Your task to perform on an android device: set default search engine in the chrome app Image 0: 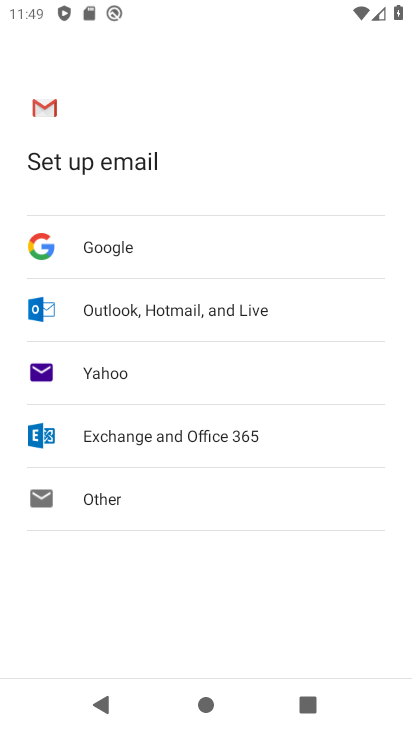
Step 0: press home button
Your task to perform on an android device: set default search engine in the chrome app Image 1: 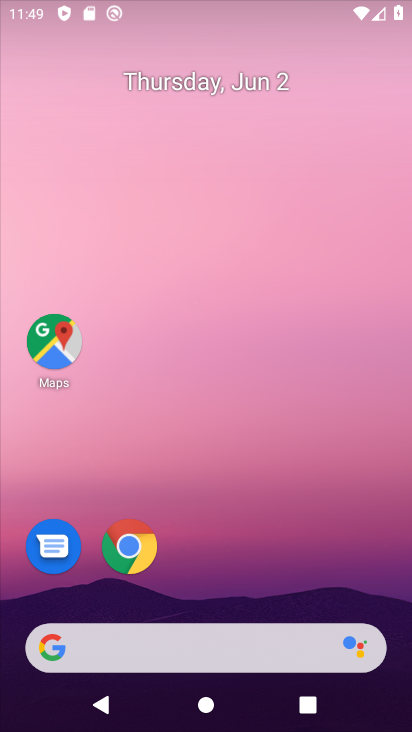
Step 1: click (145, 544)
Your task to perform on an android device: set default search engine in the chrome app Image 2: 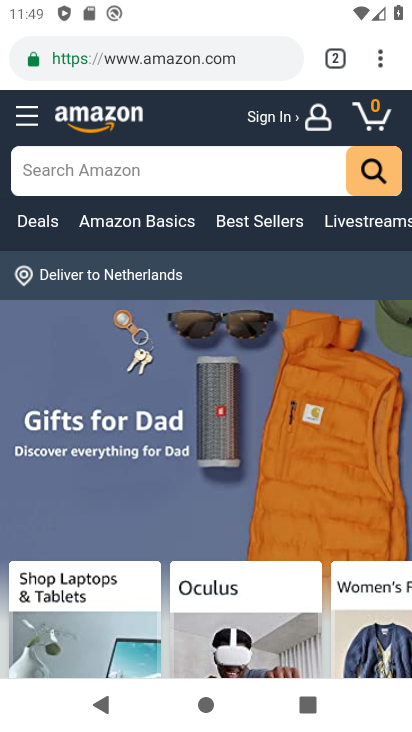
Step 2: click (378, 61)
Your task to perform on an android device: set default search engine in the chrome app Image 3: 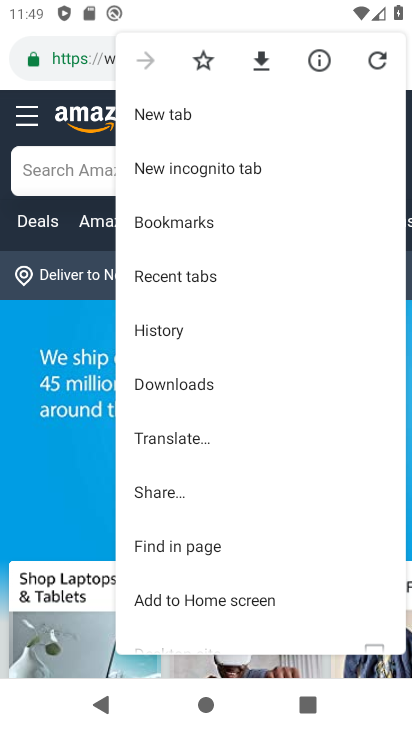
Step 3: drag from (202, 549) to (260, 146)
Your task to perform on an android device: set default search engine in the chrome app Image 4: 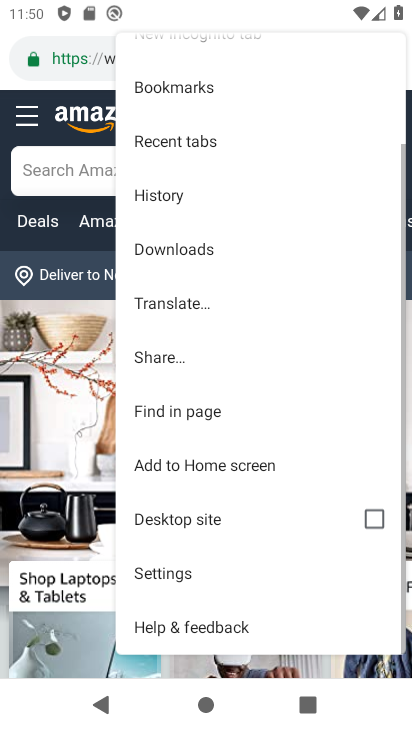
Step 4: click (147, 575)
Your task to perform on an android device: set default search engine in the chrome app Image 5: 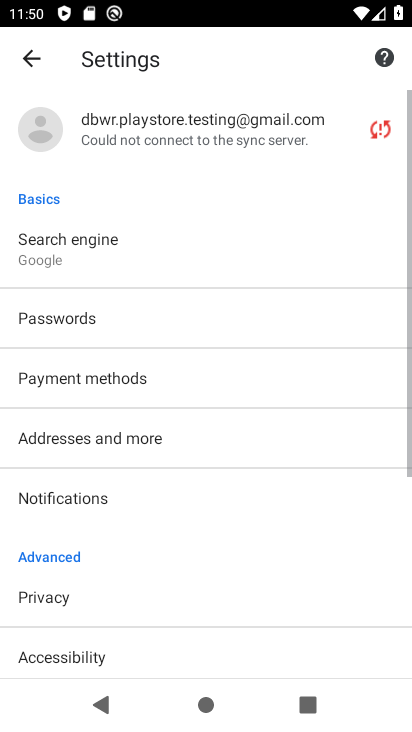
Step 5: click (132, 246)
Your task to perform on an android device: set default search engine in the chrome app Image 6: 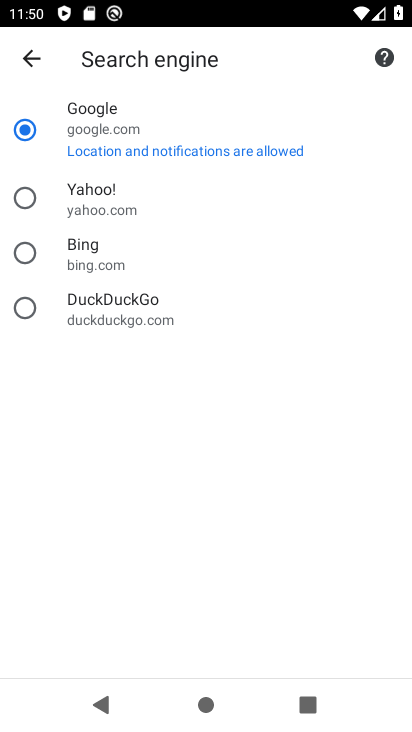
Step 6: task complete